Your task to perform on an android device: change notifications settings Image 0: 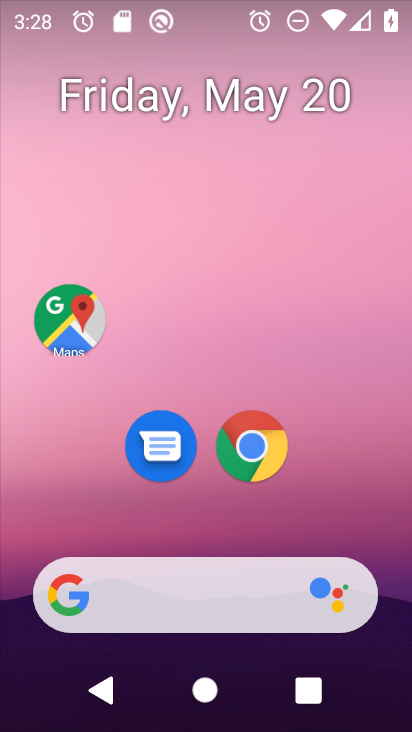
Step 0: drag from (366, 542) to (298, 8)
Your task to perform on an android device: change notifications settings Image 1: 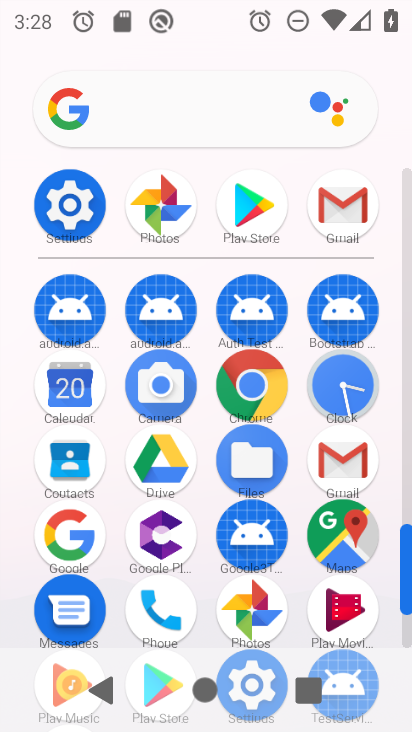
Step 1: click (72, 213)
Your task to perform on an android device: change notifications settings Image 2: 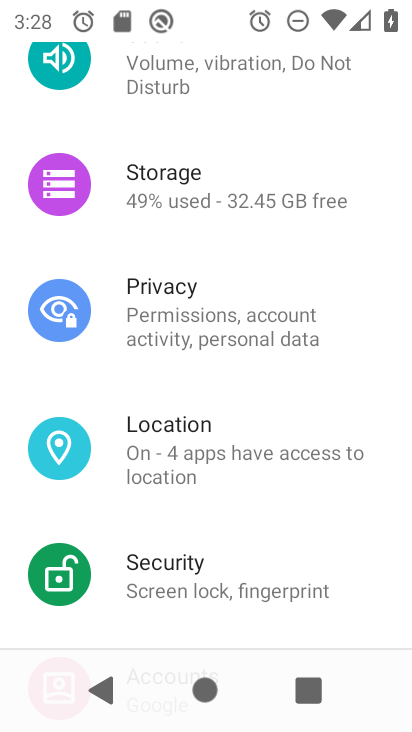
Step 2: drag from (357, 151) to (403, 557)
Your task to perform on an android device: change notifications settings Image 3: 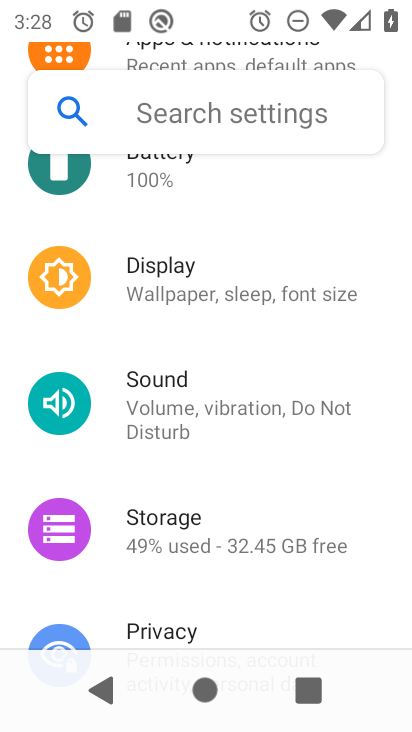
Step 3: drag from (353, 260) to (355, 600)
Your task to perform on an android device: change notifications settings Image 4: 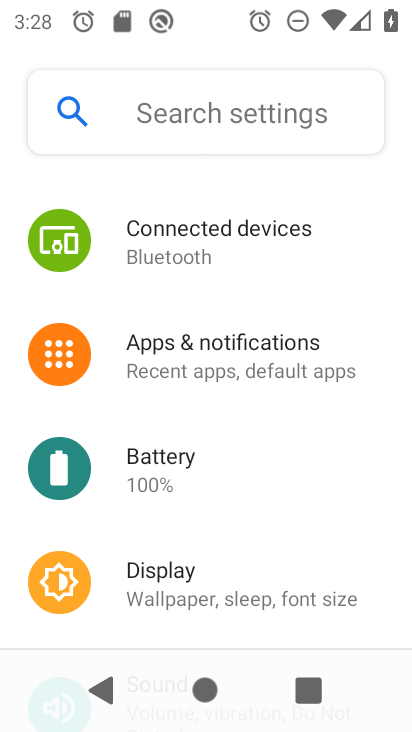
Step 4: click (209, 365)
Your task to perform on an android device: change notifications settings Image 5: 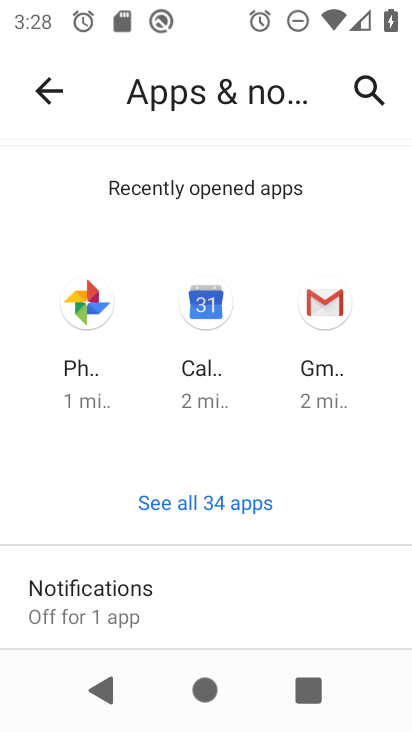
Step 5: click (120, 595)
Your task to perform on an android device: change notifications settings Image 6: 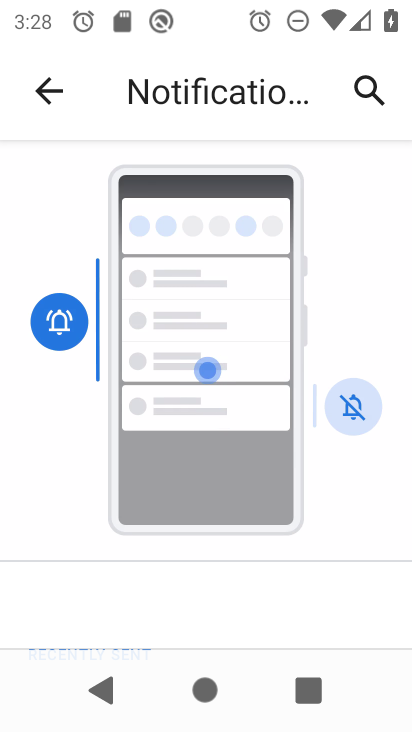
Step 6: drag from (250, 541) to (226, 24)
Your task to perform on an android device: change notifications settings Image 7: 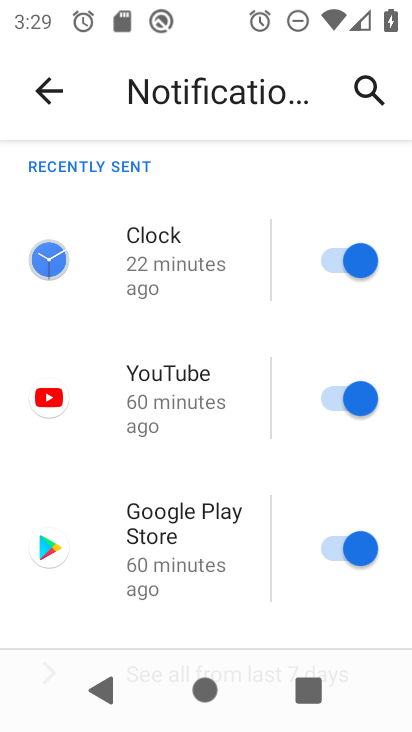
Step 7: drag from (168, 467) to (169, 87)
Your task to perform on an android device: change notifications settings Image 8: 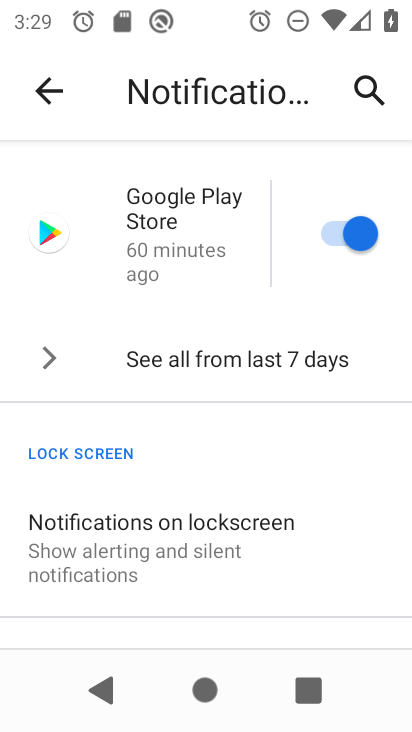
Step 8: click (187, 359)
Your task to perform on an android device: change notifications settings Image 9: 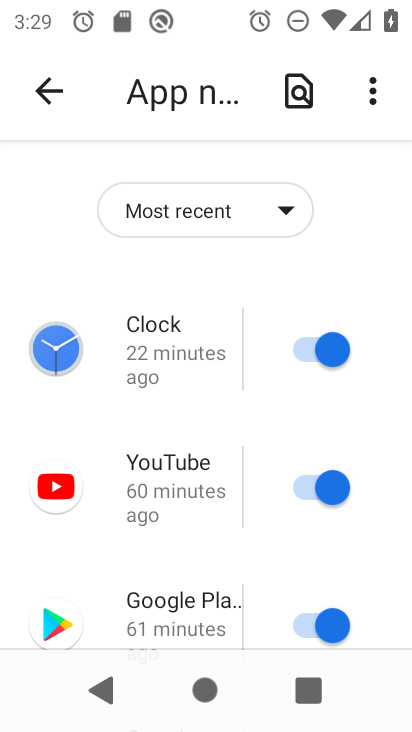
Step 9: click (285, 210)
Your task to perform on an android device: change notifications settings Image 10: 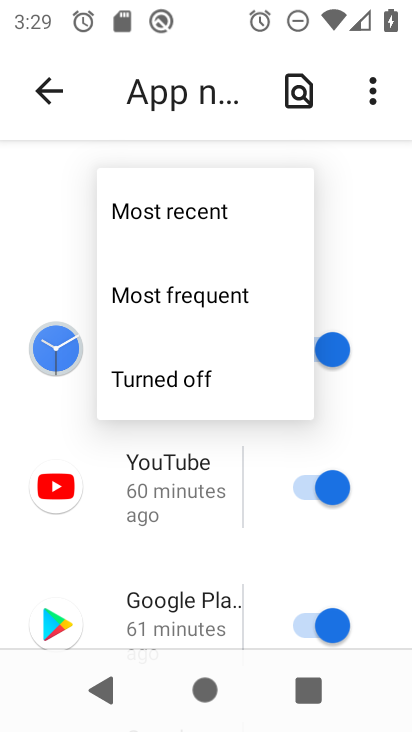
Step 10: click (138, 292)
Your task to perform on an android device: change notifications settings Image 11: 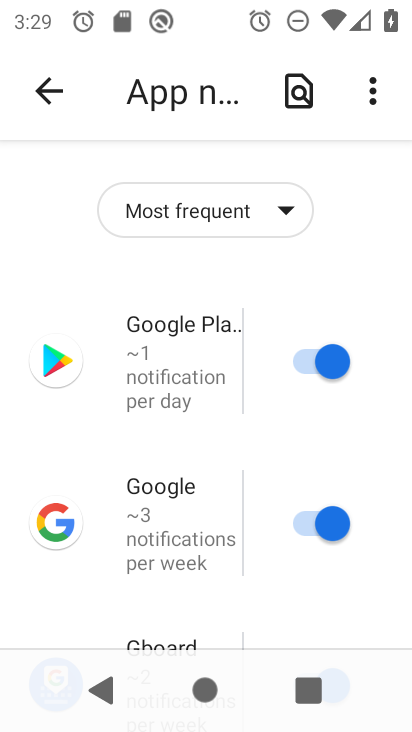
Step 11: task complete